Your task to perform on an android device: Go to Maps Image 0: 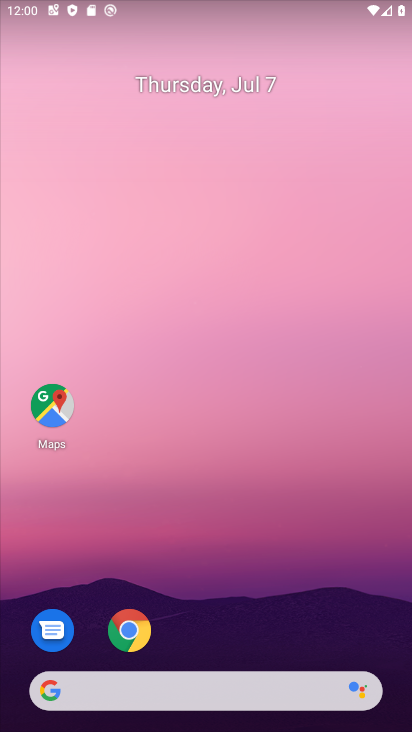
Step 0: drag from (238, 622) to (252, 0)
Your task to perform on an android device: Go to Maps Image 1: 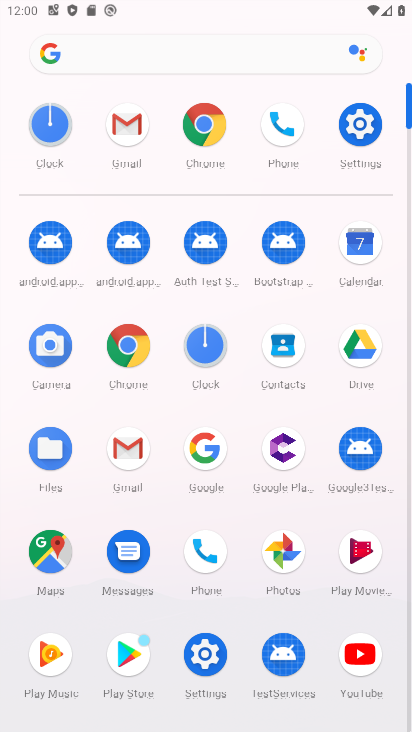
Step 1: click (59, 558)
Your task to perform on an android device: Go to Maps Image 2: 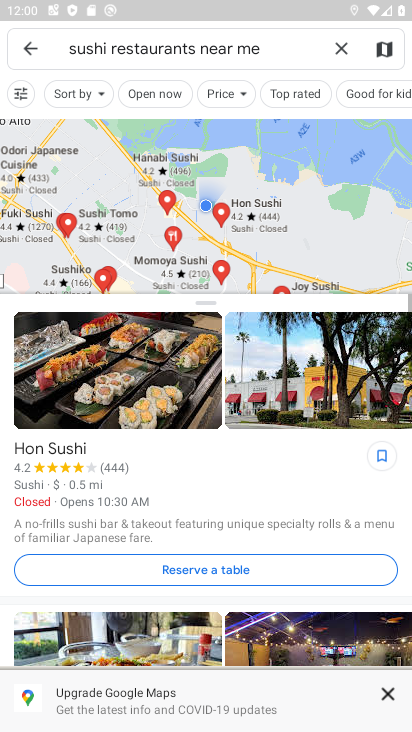
Step 2: click (25, 50)
Your task to perform on an android device: Go to Maps Image 3: 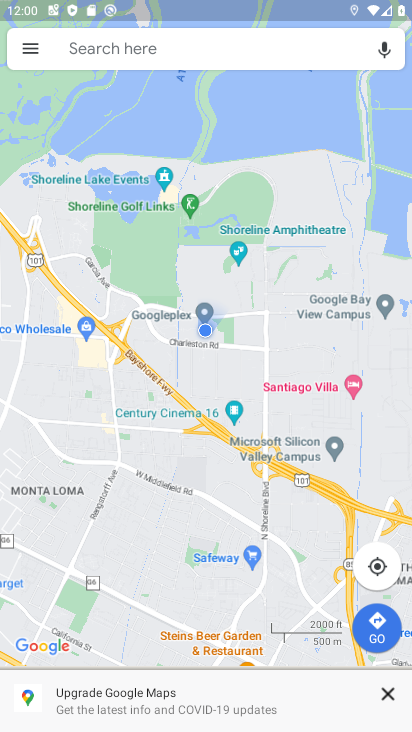
Step 3: task complete